Your task to perform on an android device: all mails in gmail Image 0: 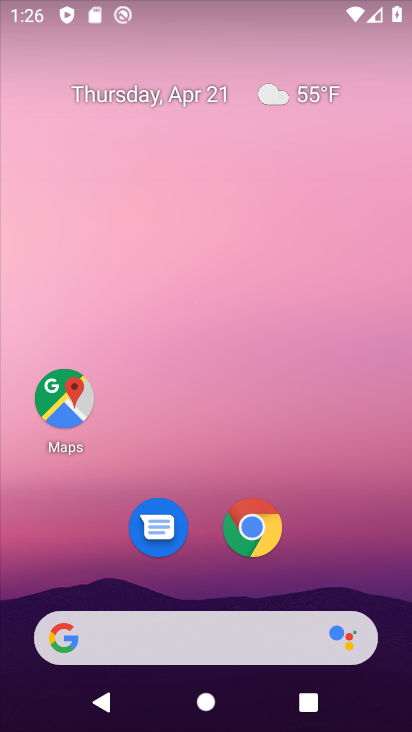
Step 0: drag from (351, 545) to (353, 72)
Your task to perform on an android device: all mails in gmail Image 1: 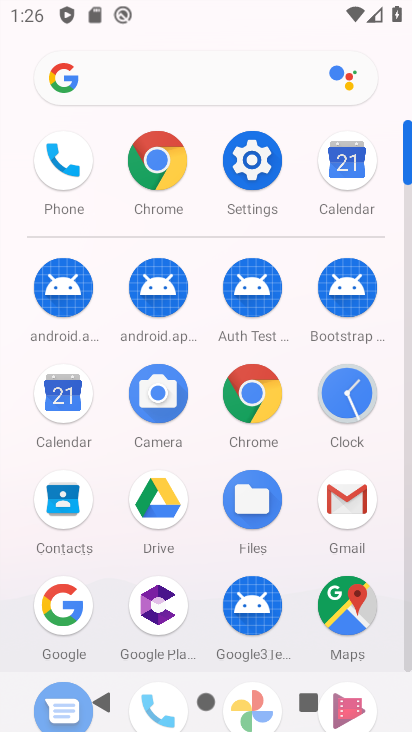
Step 1: click (354, 496)
Your task to perform on an android device: all mails in gmail Image 2: 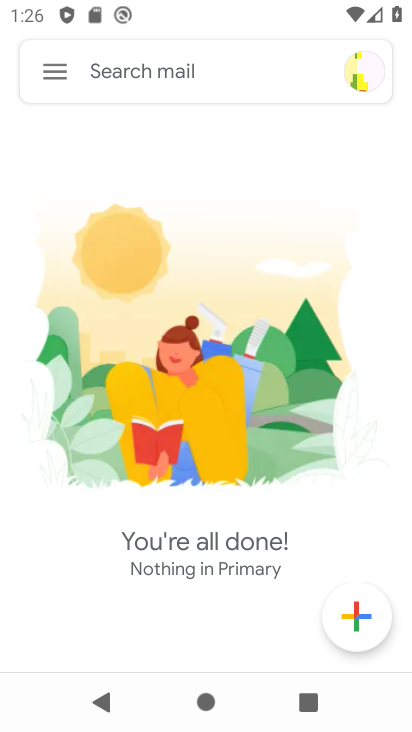
Step 2: click (52, 71)
Your task to perform on an android device: all mails in gmail Image 3: 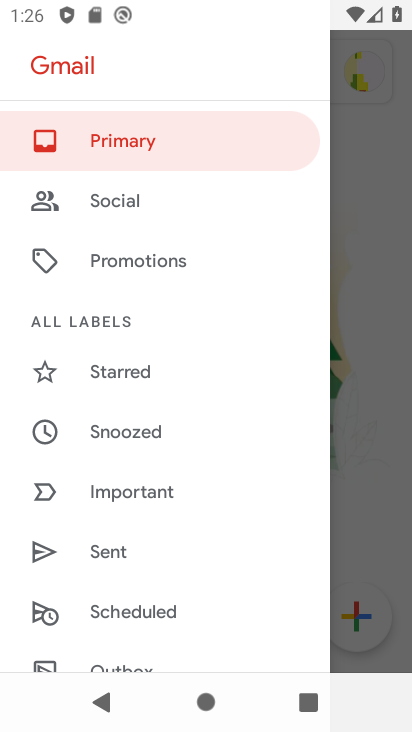
Step 3: drag from (267, 486) to (279, 300)
Your task to perform on an android device: all mails in gmail Image 4: 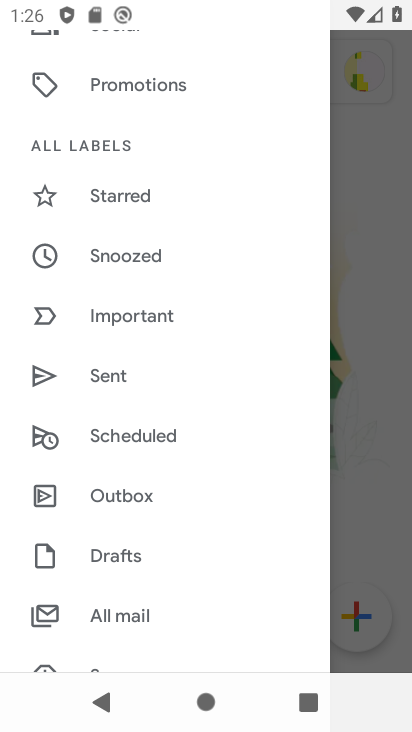
Step 4: drag from (261, 561) to (289, 360)
Your task to perform on an android device: all mails in gmail Image 5: 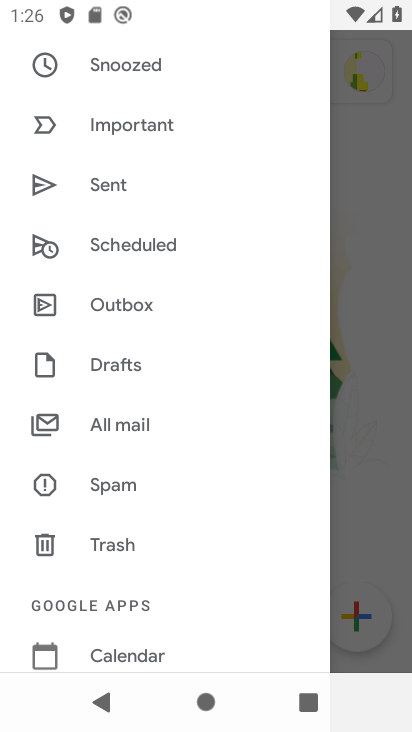
Step 5: drag from (260, 602) to (267, 484)
Your task to perform on an android device: all mails in gmail Image 6: 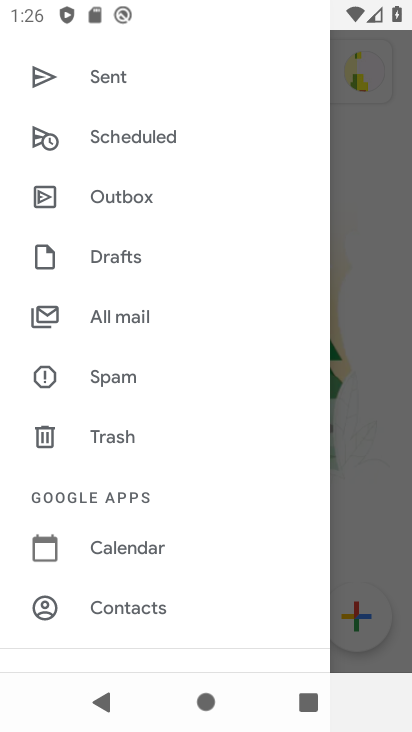
Step 6: drag from (250, 609) to (287, 396)
Your task to perform on an android device: all mails in gmail Image 7: 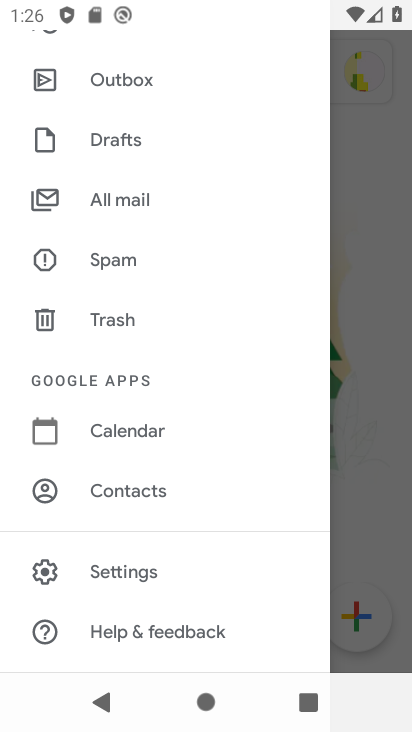
Step 7: drag from (247, 249) to (251, 461)
Your task to perform on an android device: all mails in gmail Image 8: 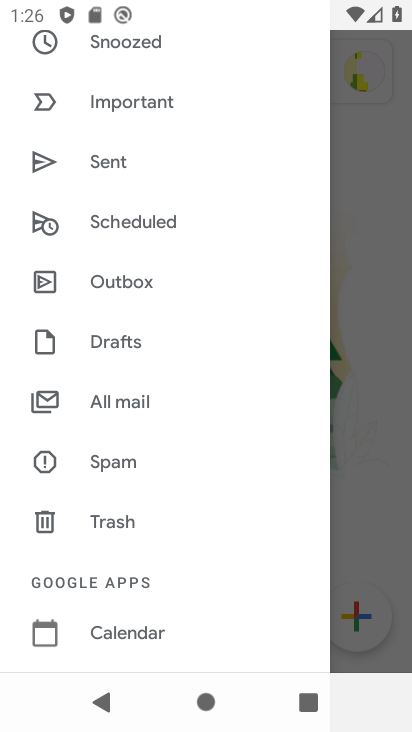
Step 8: drag from (245, 248) to (250, 396)
Your task to perform on an android device: all mails in gmail Image 9: 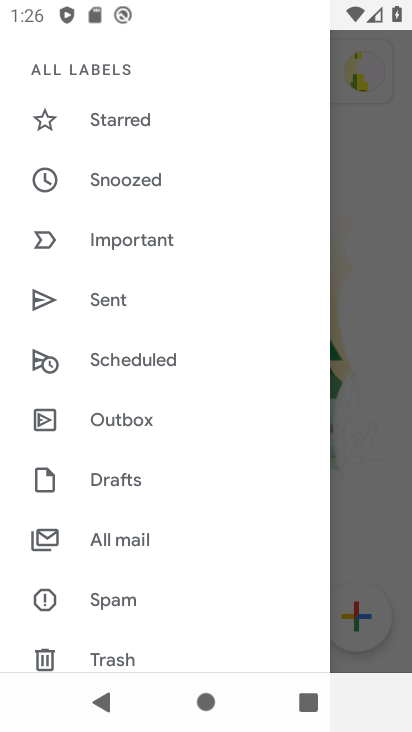
Step 9: click (135, 557)
Your task to perform on an android device: all mails in gmail Image 10: 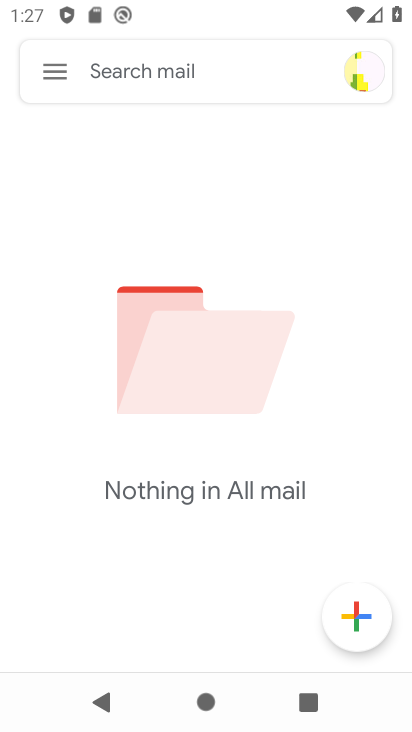
Step 10: task complete